Your task to perform on an android device: change the clock display to show seconds Image 0: 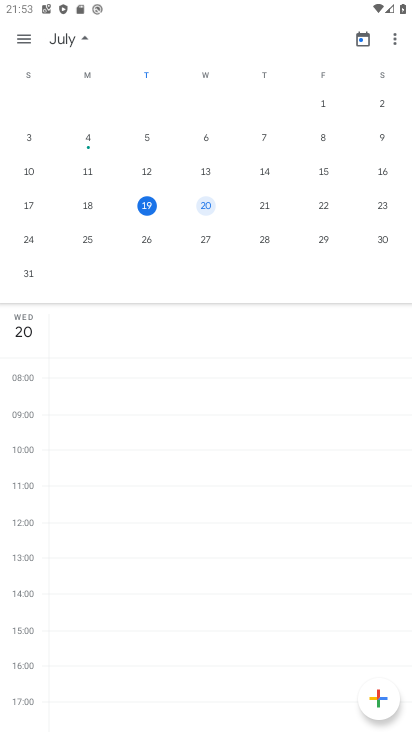
Step 0: press home button
Your task to perform on an android device: change the clock display to show seconds Image 1: 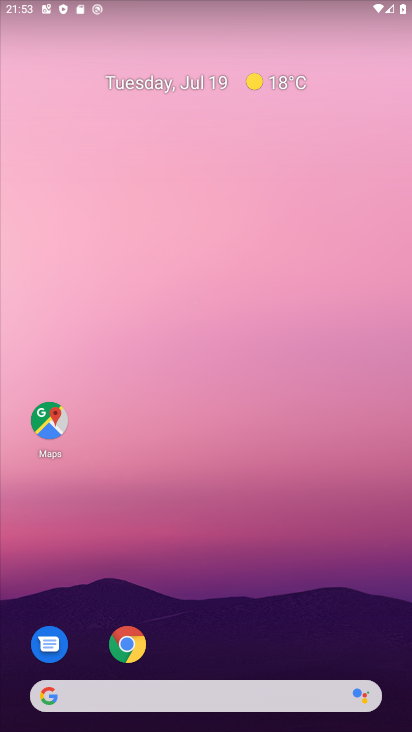
Step 1: drag from (228, 690) to (225, 189)
Your task to perform on an android device: change the clock display to show seconds Image 2: 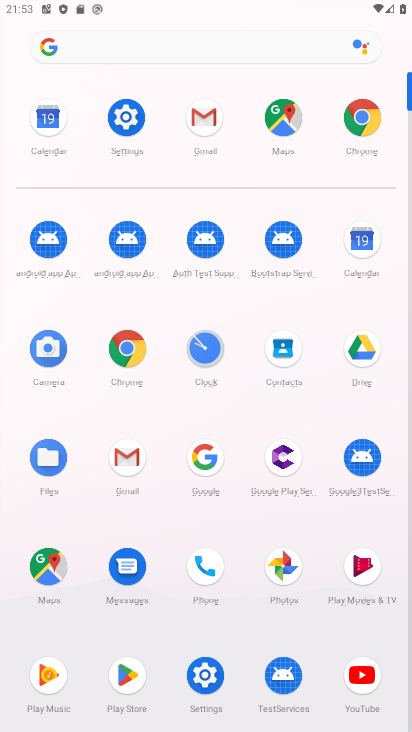
Step 2: click (203, 348)
Your task to perform on an android device: change the clock display to show seconds Image 3: 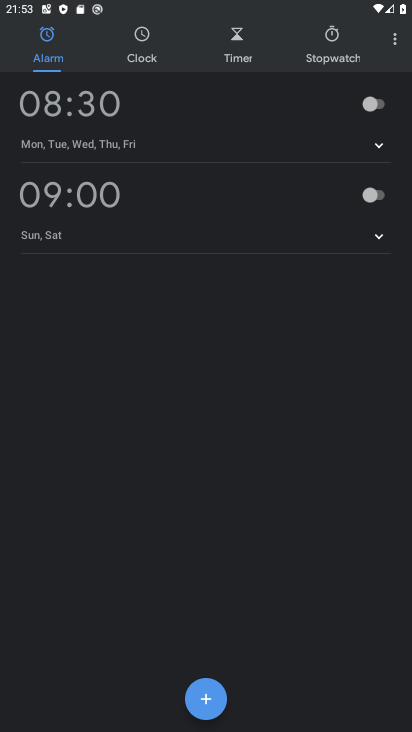
Step 3: click (394, 46)
Your task to perform on an android device: change the clock display to show seconds Image 4: 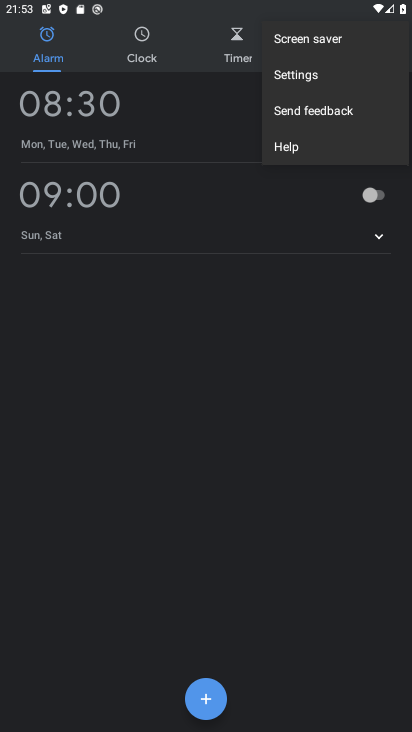
Step 4: click (300, 76)
Your task to perform on an android device: change the clock display to show seconds Image 5: 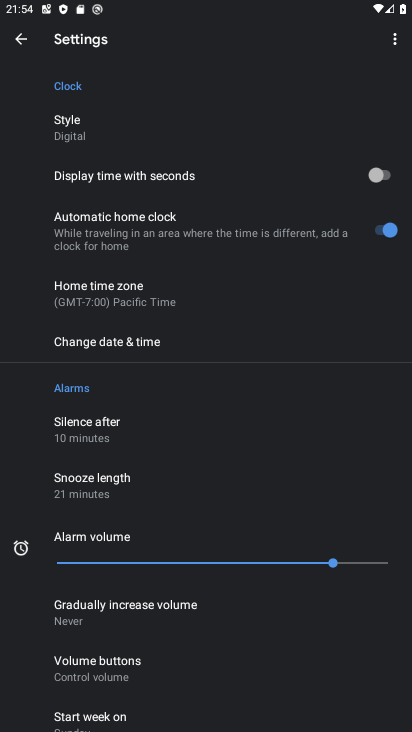
Step 5: click (384, 170)
Your task to perform on an android device: change the clock display to show seconds Image 6: 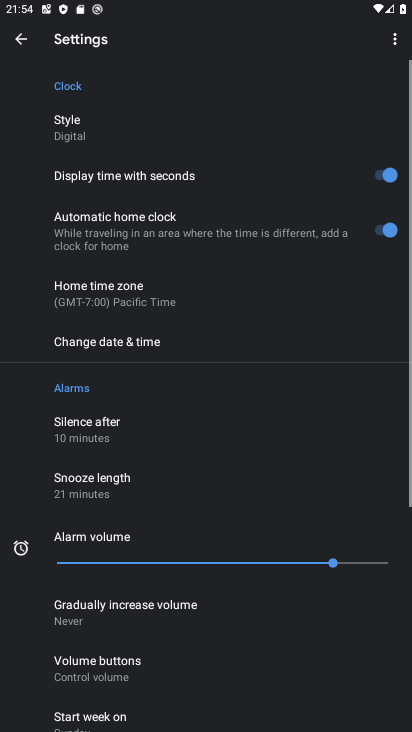
Step 6: task complete